Your task to perform on an android device: Do I have any events tomorrow? Image 0: 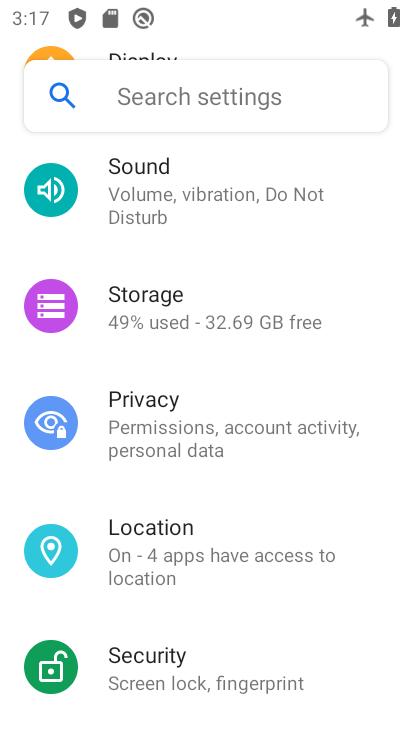
Step 0: press back button
Your task to perform on an android device: Do I have any events tomorrow? Image 1: 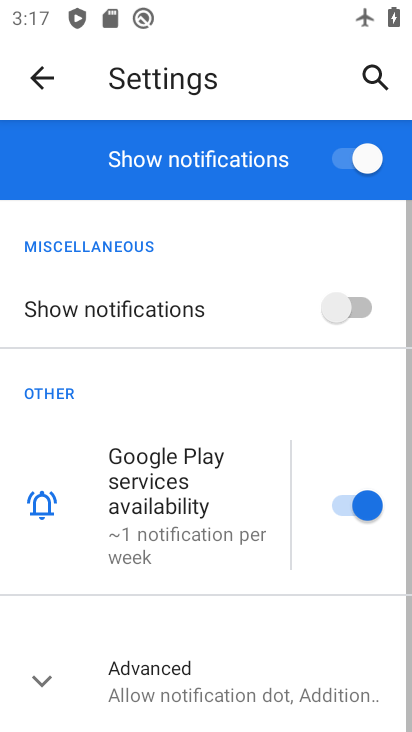
Step 1: press back button
Your task to perform on an android device: Do I have any events tomorrow? Image 2: 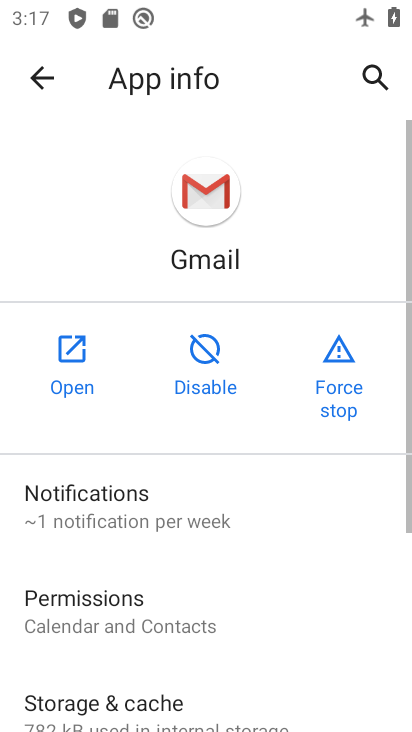
Step 2: press back button
Your task to perform on an android device: Do I have any events tomorrow? Image 3: 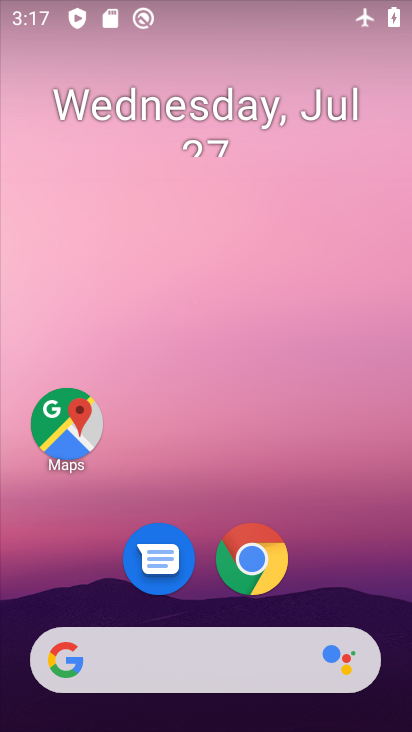
Step 3: drag from (93, 589) to (262, 37)
Your task to perform on an android device: Do I have any events tomorrow? Image 4: 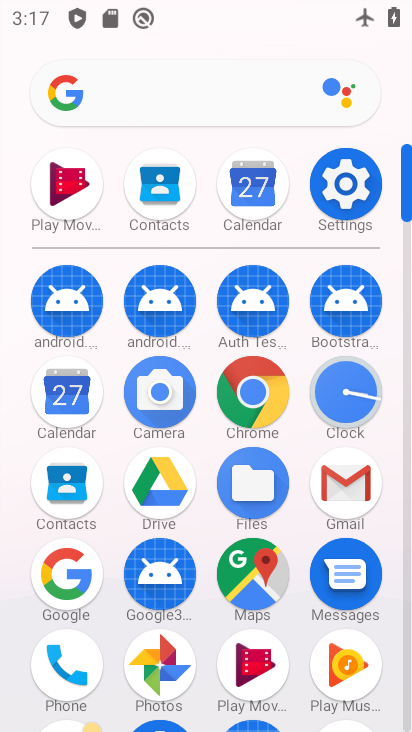
Step 4: click (76, 402)
Your task to perform on an android device: Do I have any events tomorrow? Image 5: 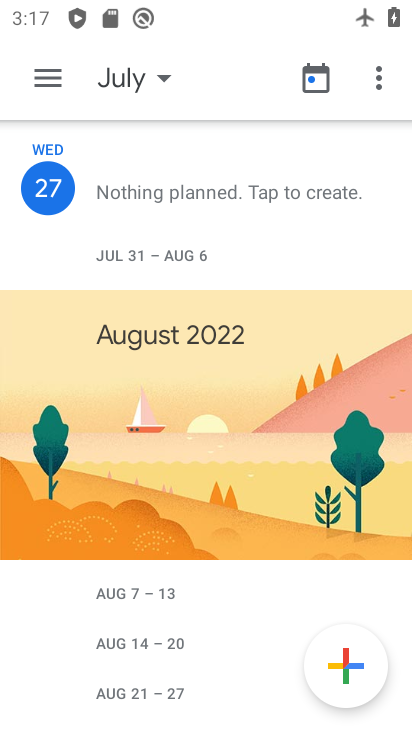
Step 5: click (162, 77)
Your task to perform on an android device: Do I have any events tomorrow? Image 6: 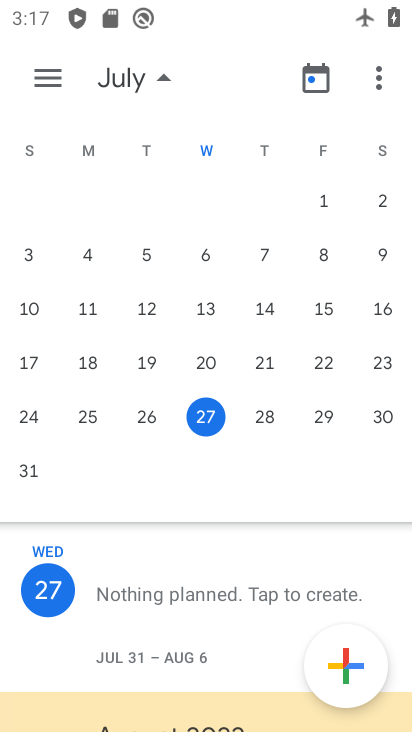
Step 6: drag from (382, 360) to (9, 372)
Your task to perform on an android device: Do I have any events tomorrow? Image 7: 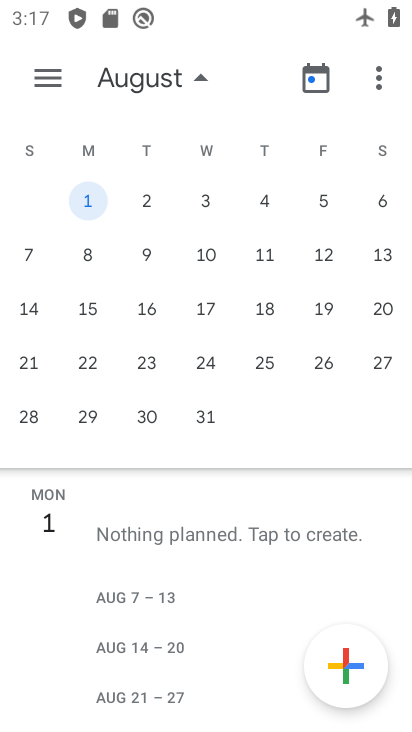
Step 7: click (19, 309)
Your task to perform on an android device: Do I have any events tomorrow? Image 8: 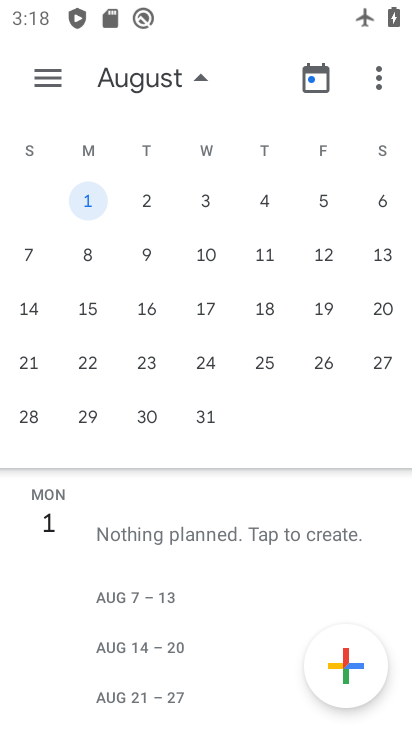
Step 8: drag from (84, 362) to (375, 360)
Your task to perform on an android device: Do I have any events tomorrow? Image 9: 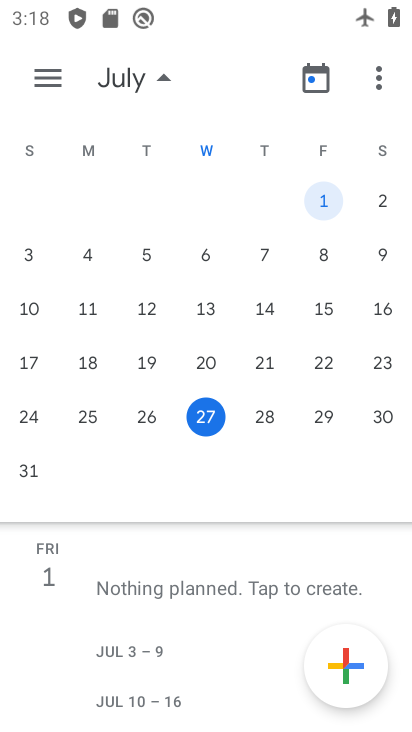
Step 9: click (213, 419)
Your task to perform on an android device: Do I have any events tomorrow? Image 10: 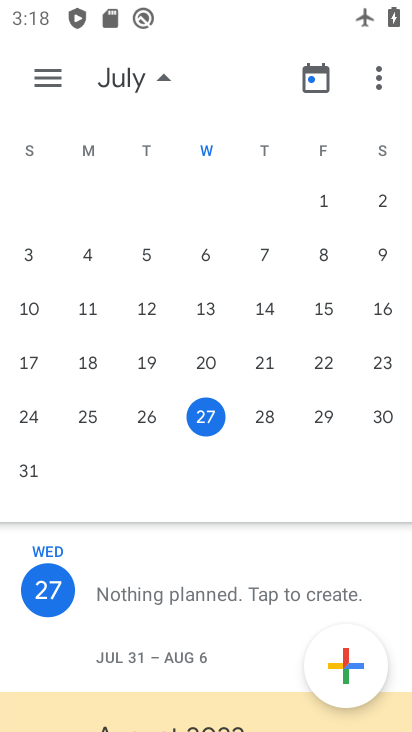
Step 10: task complete